Your task to perform on an android device: open app "Nova Launcher" (install if not already installed) and go to login screen Image 0: 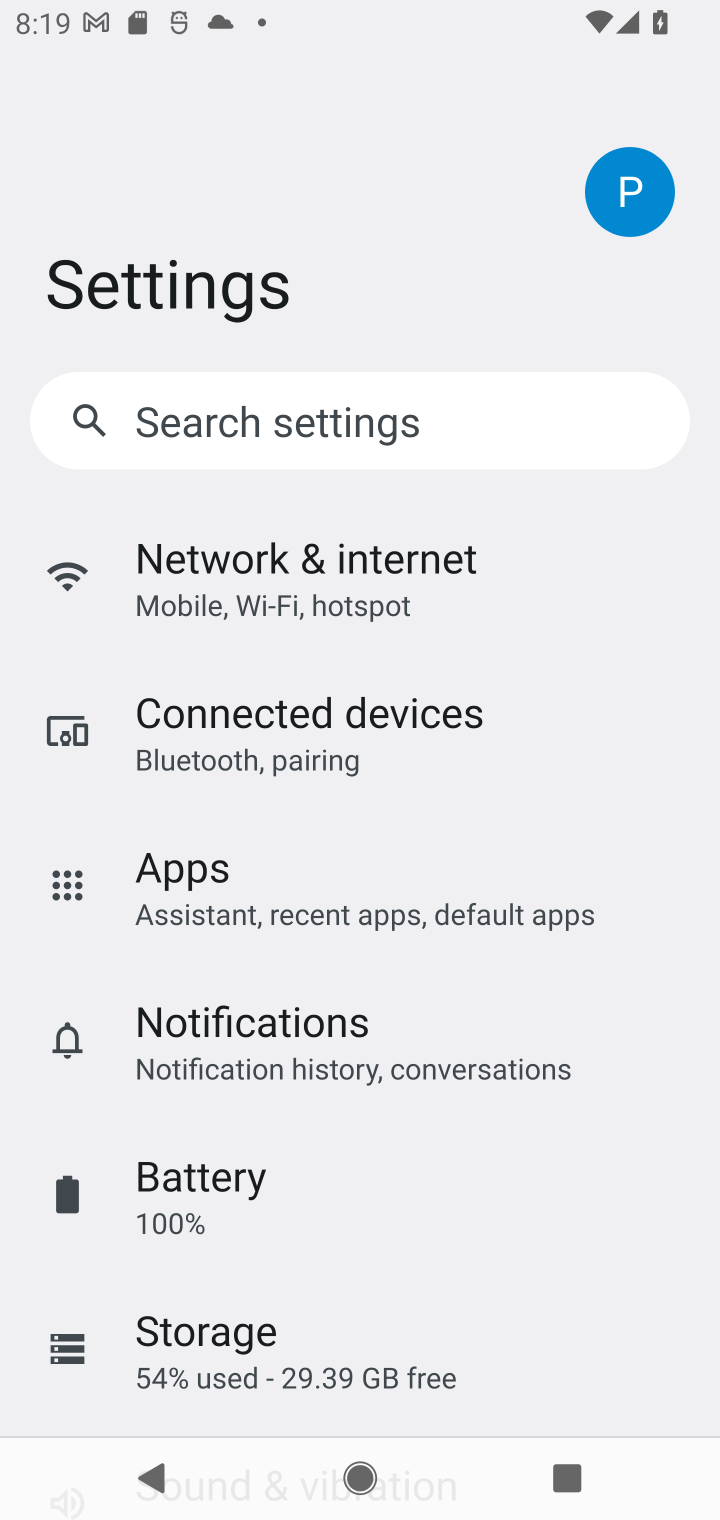
Step 0: press back button
Your task to perform on an android device: open app "Nova Launcher" (install if not already installed) and go to login screen Image 1: 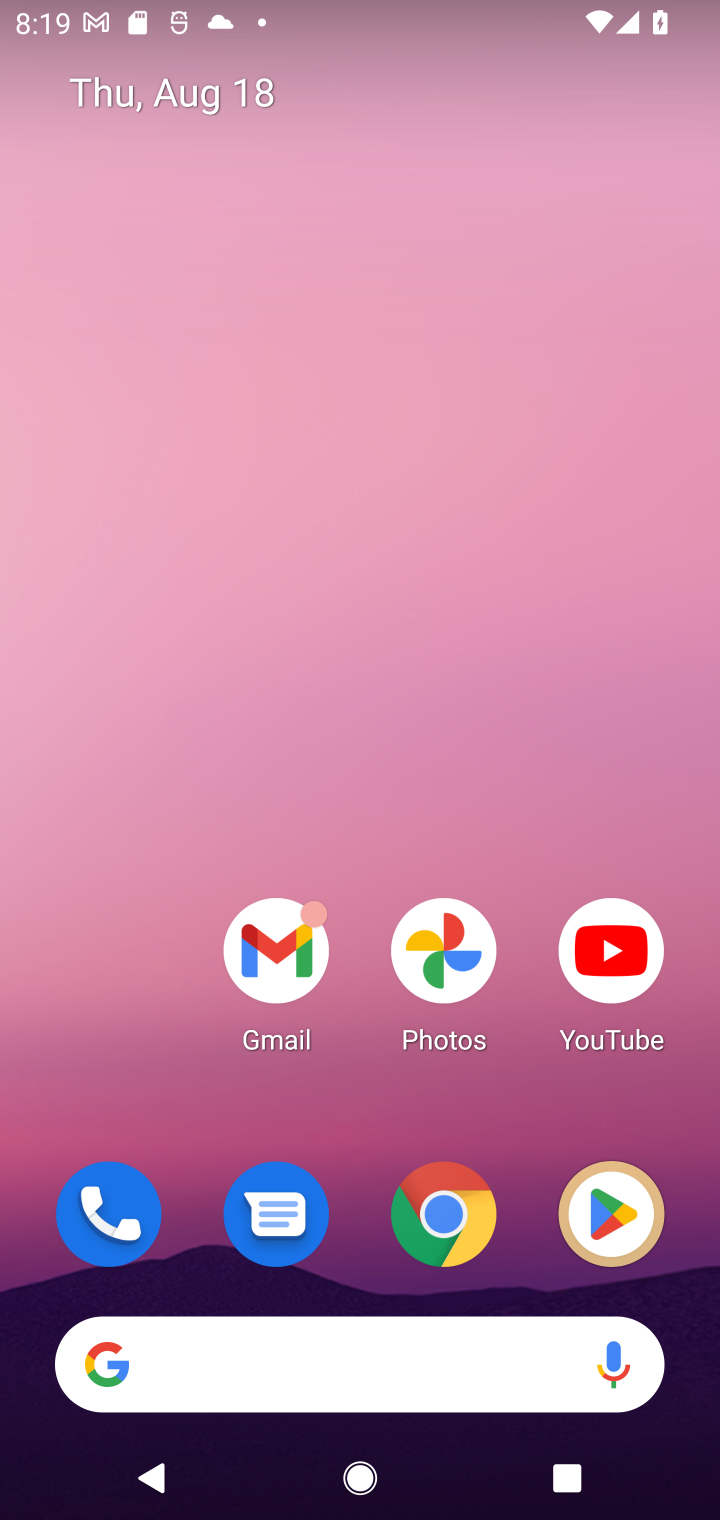
Step 1: click (586, 1202)
Your task to perform on an android device: open app "Nova Launcher" (install if not already installed) and go to login screen Image 2: 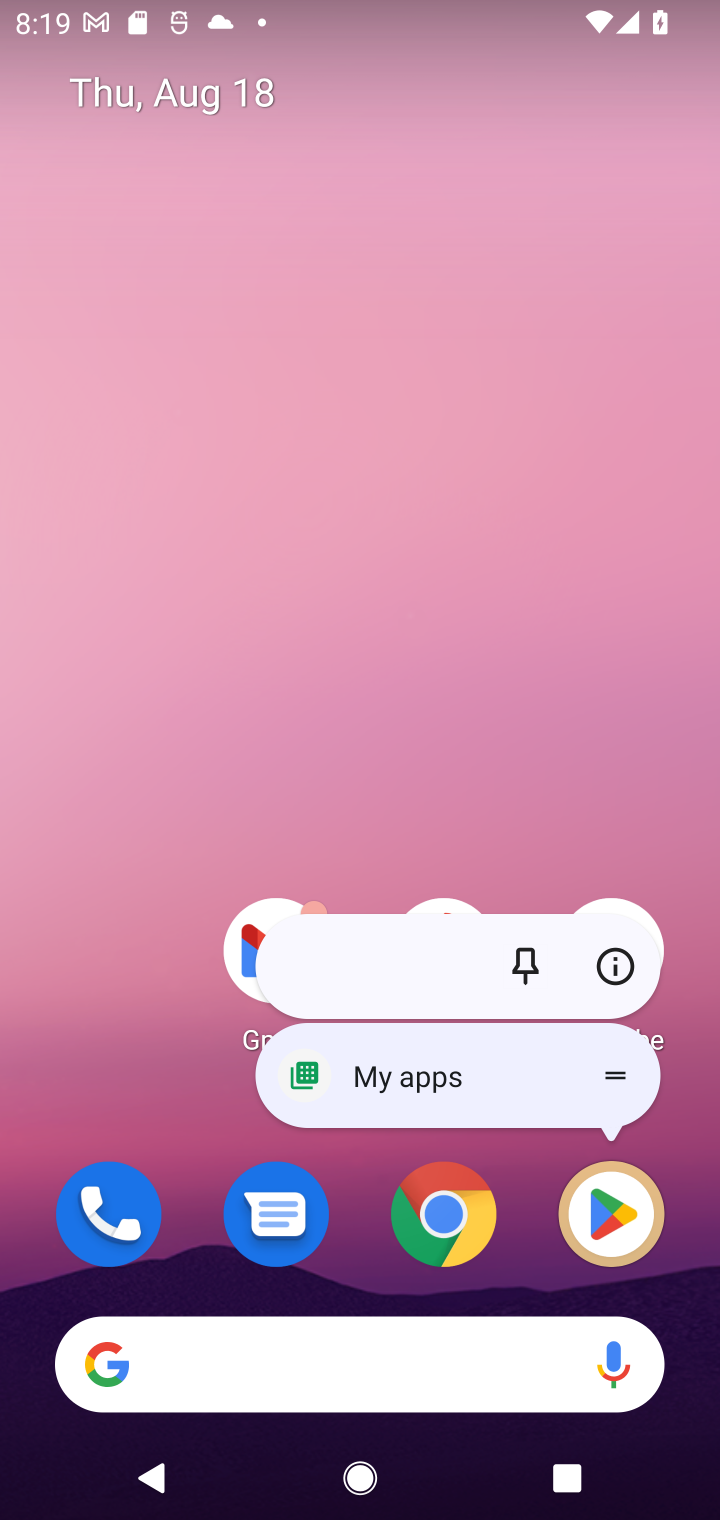
Step 2: click (610, 1201)
Your task to perform on an android device: open app "Nova Launcher" (install if not already installed) and go to login screen Image 3: 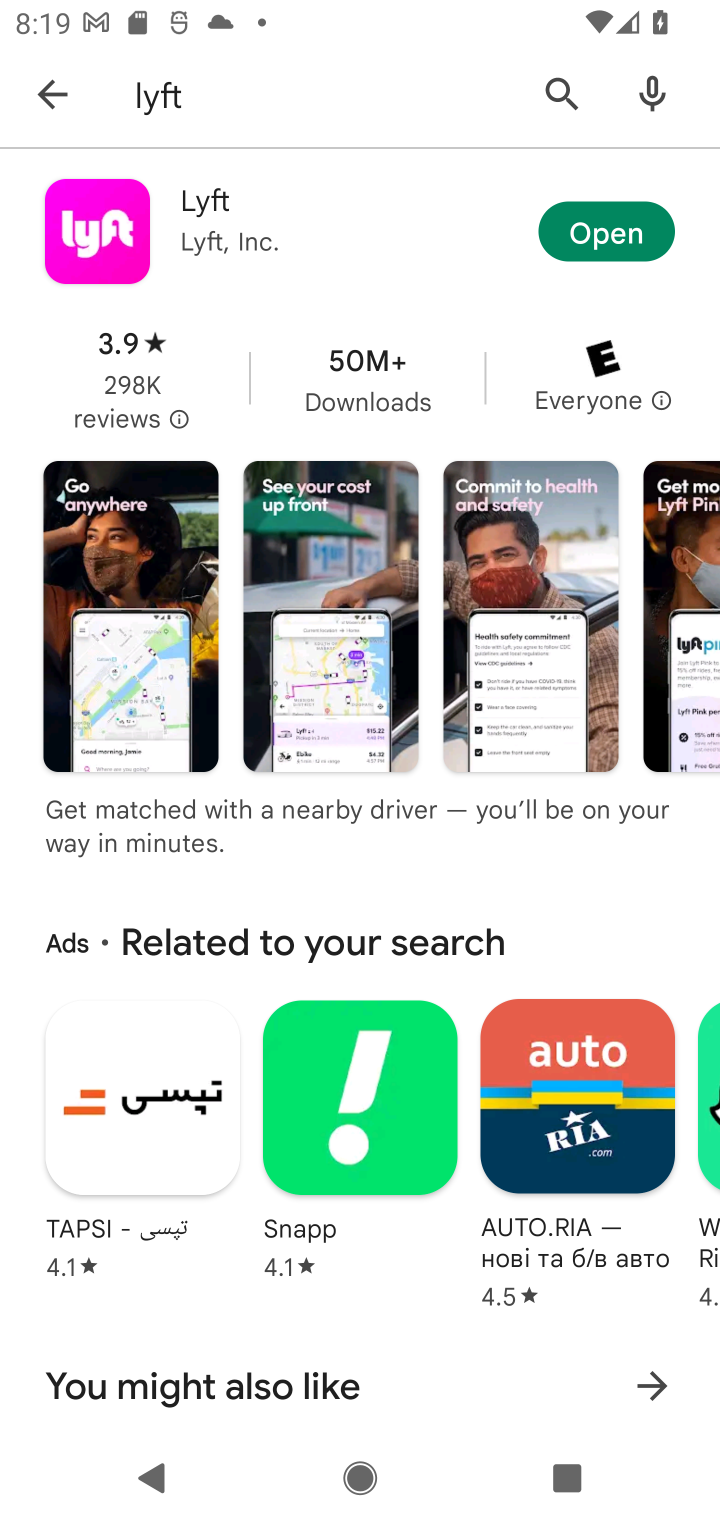
Step 3: click (547, 80)
Your task to perform on an android device: open app "Nova Launcher" (install if not already installed) and go to login screen Image 4: 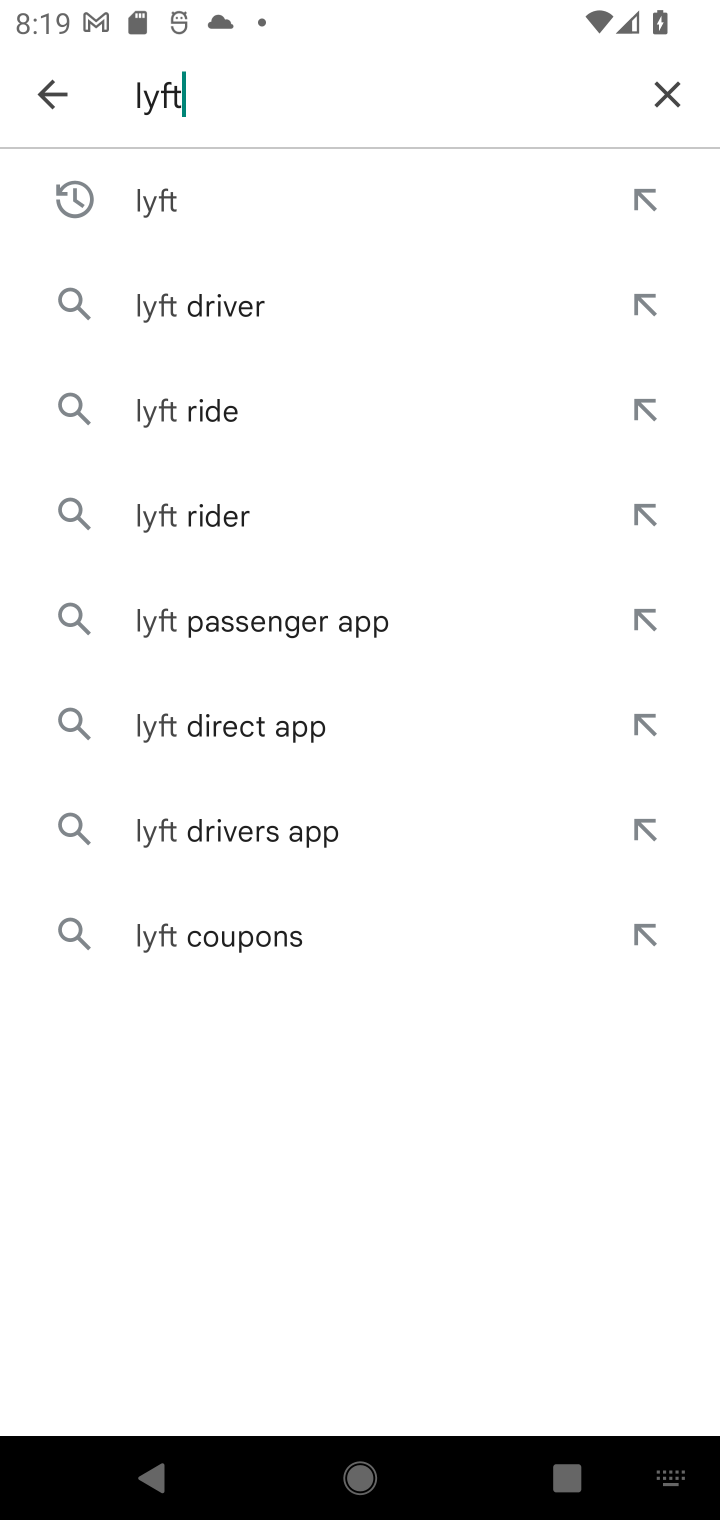
Step 4: click (680, 83)
Your task to perform on an android device: open app "Nova Launcher" (install if not already installed) and go to login screen Image 5: 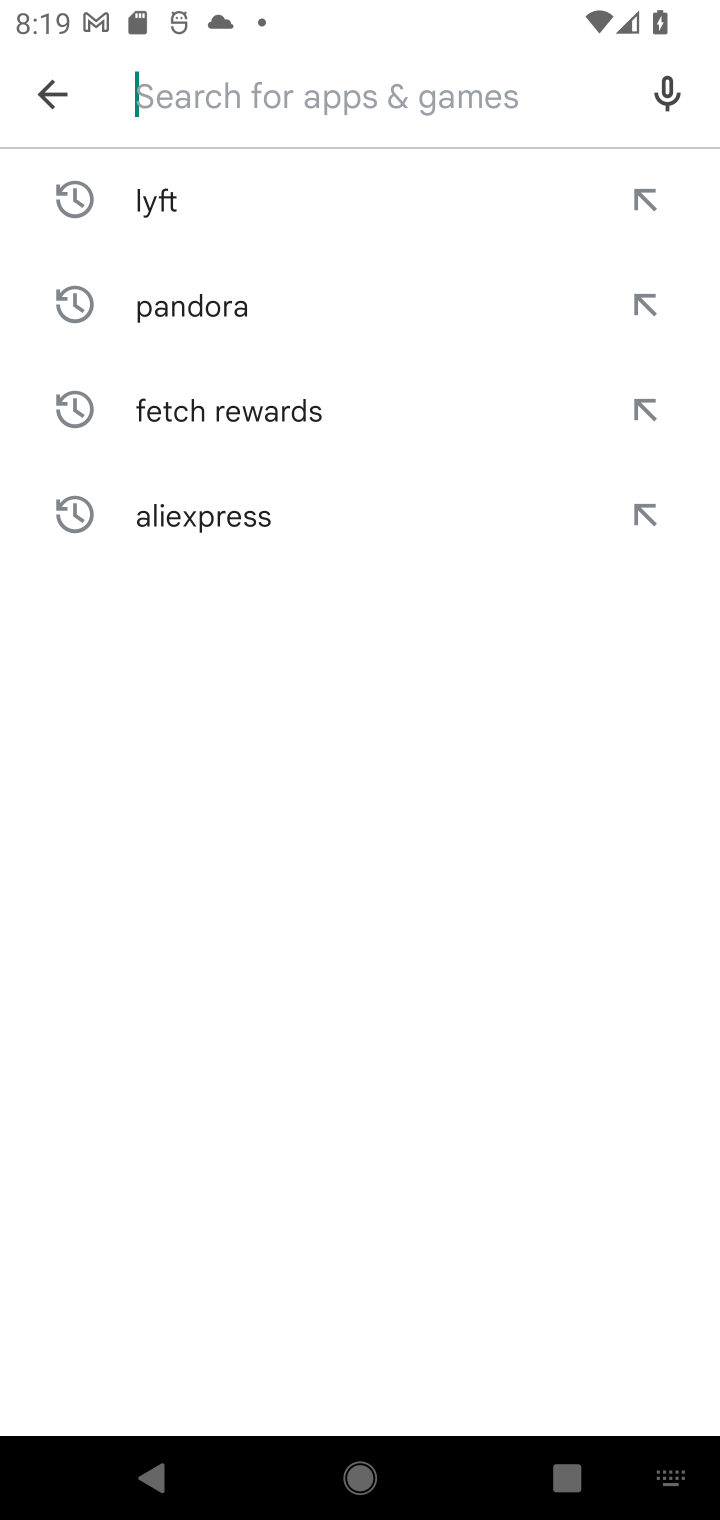
Step 5: type "nova launcher"
Your task to perform on an android device: open app "Nova Launcher" (install if not already installed) and go to login screen Image 6: 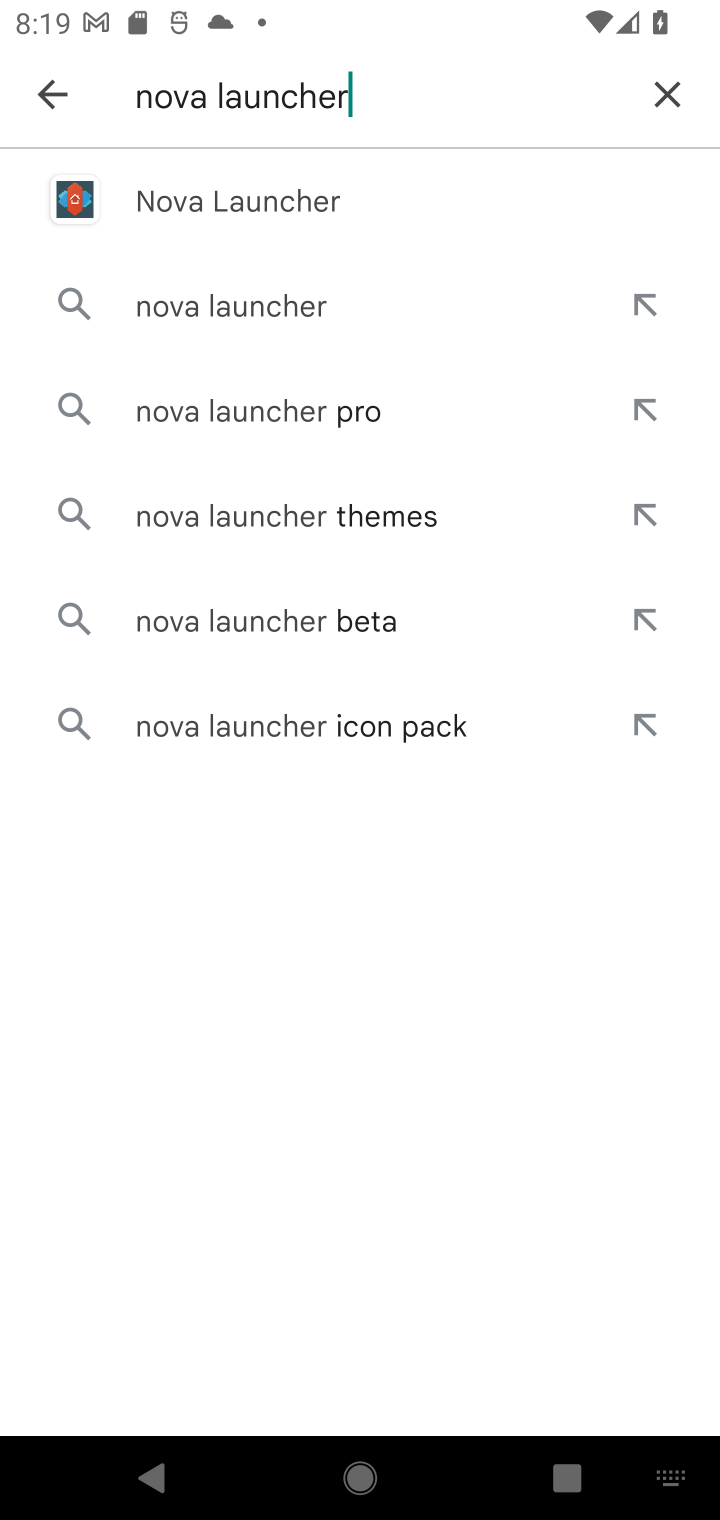
Step 6: click (252, 198)
Your task to perform on an android device: open app "Nova Launcher" (install if not already installed) and go to login screen Image 7: 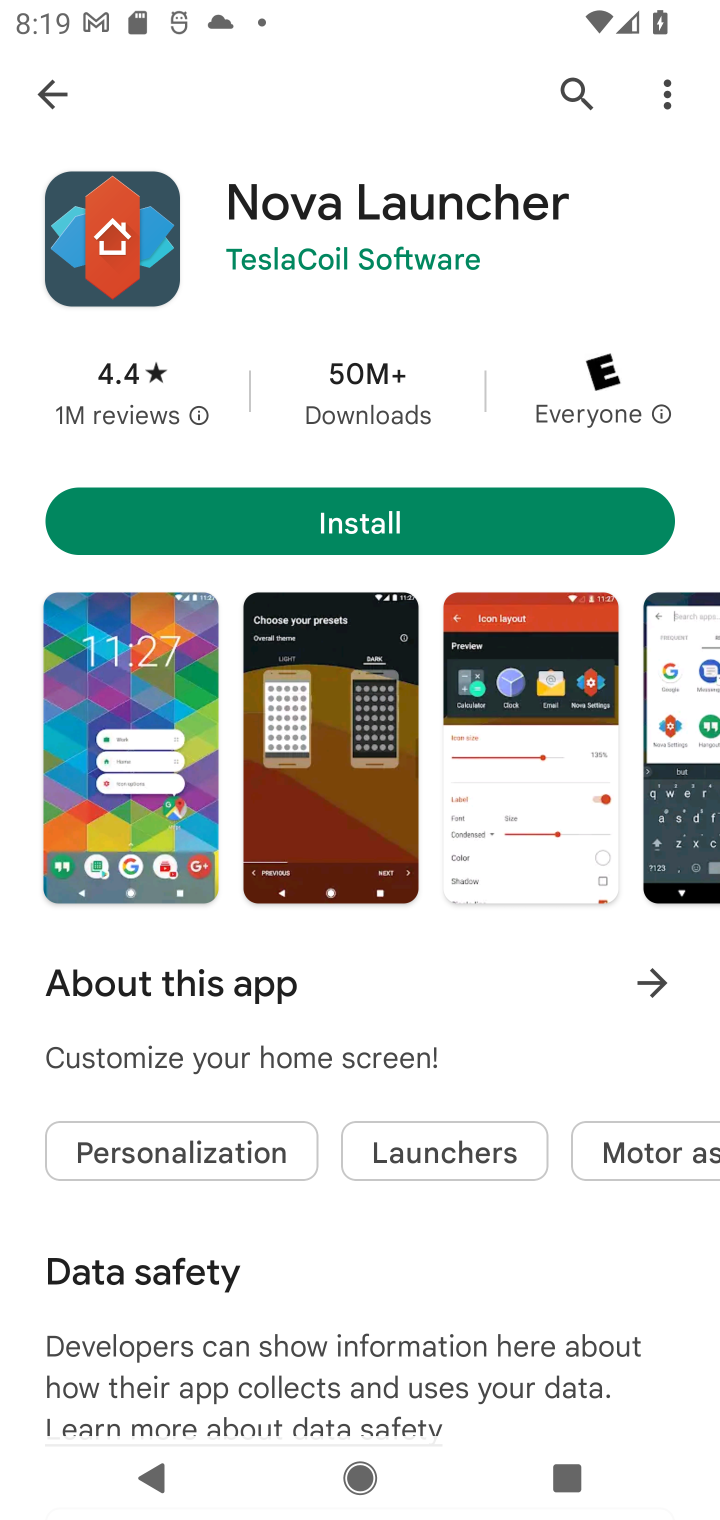
Step 7: click (375, 536)
Your task to perform on an android device: open app "Nova Launcher" (install if not already installed) and go to login screen Image 8: 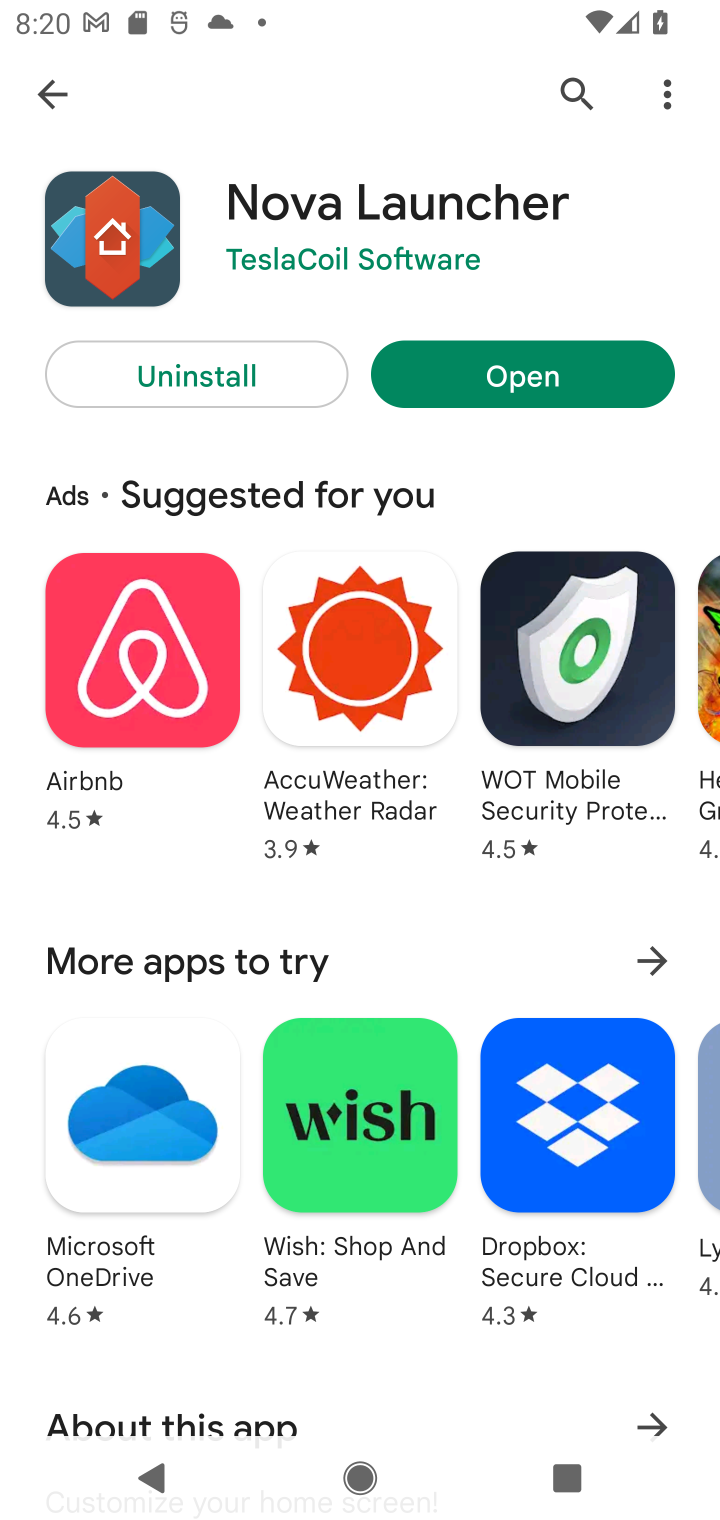
Step 8: click (551, 377)
Your task to perform on an android device: open app "Nova Launcher" (install if not already installed) and go to login screen Image 9: 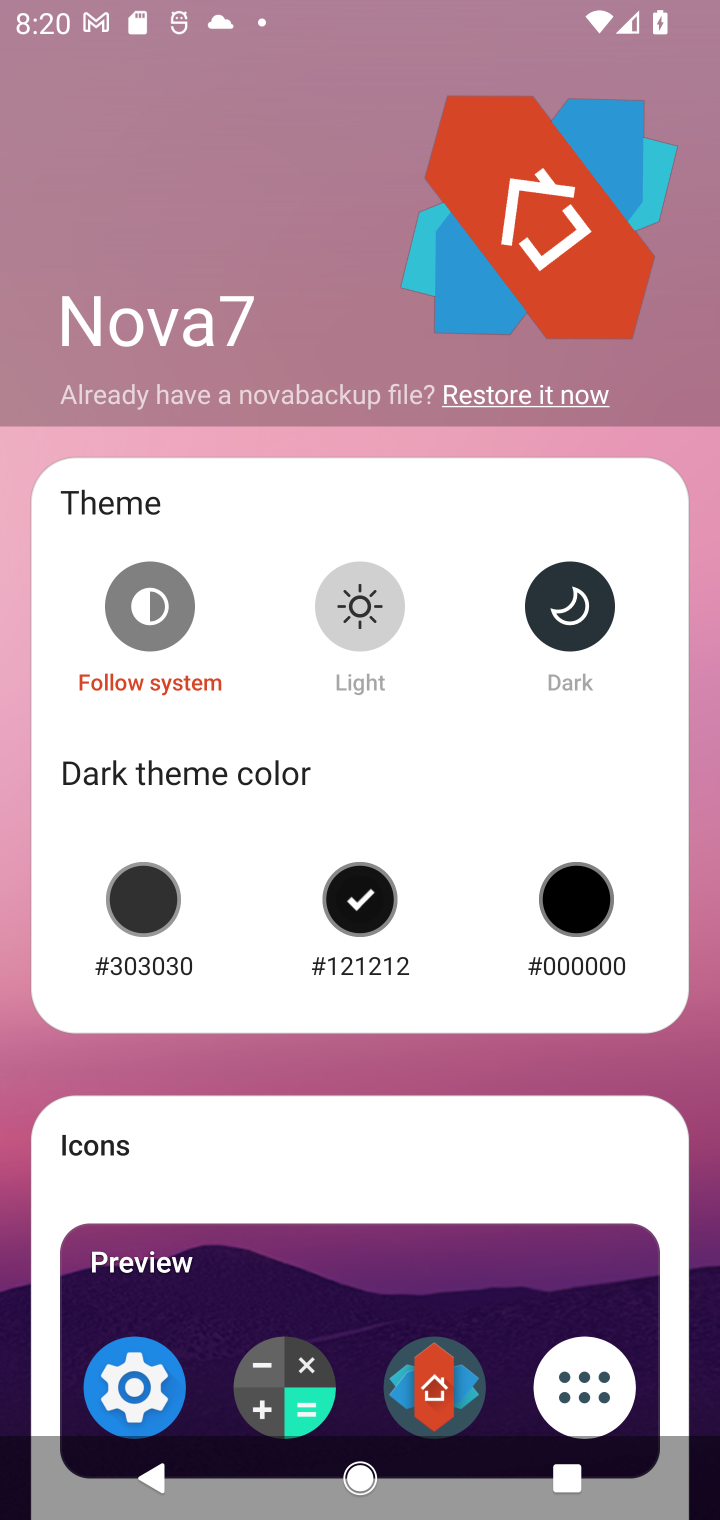
Step 9: task complete